Your task to perform on an android device: Go to Amazon Image 0: 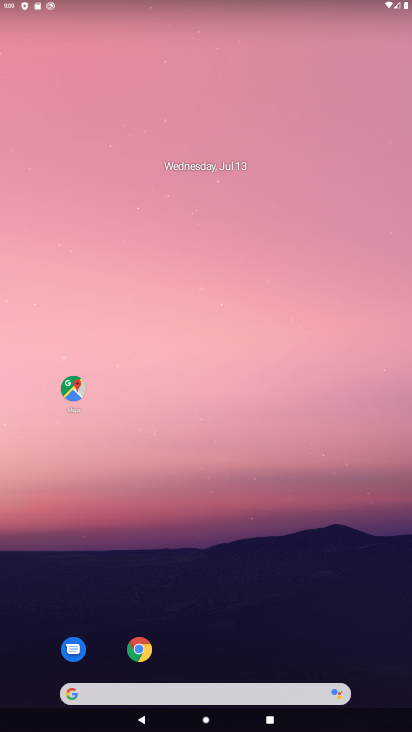
Step 0: click (144, 652)
Your task to perform on an android device: Go to Amazon Image 1: 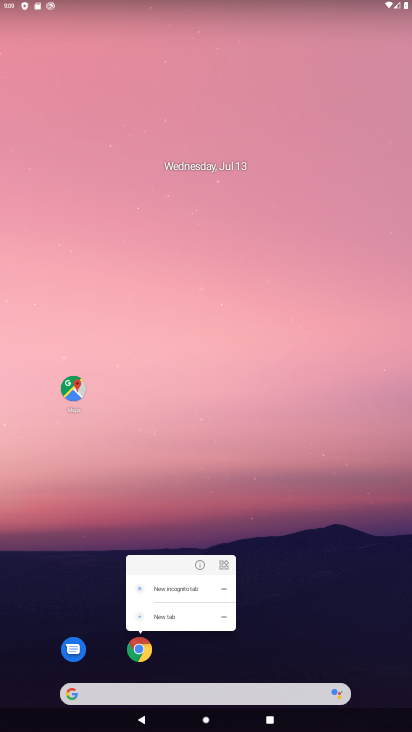
Step 1: click (147, 648)
Your task to perform on an android device: Go to Amazon Image 2: 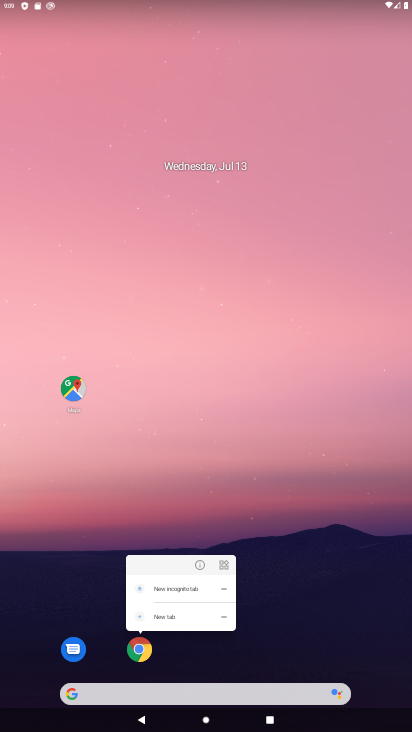
Step 2: click (146, 650)
Your task to perform on an android device: Go to Amazon Image 3: 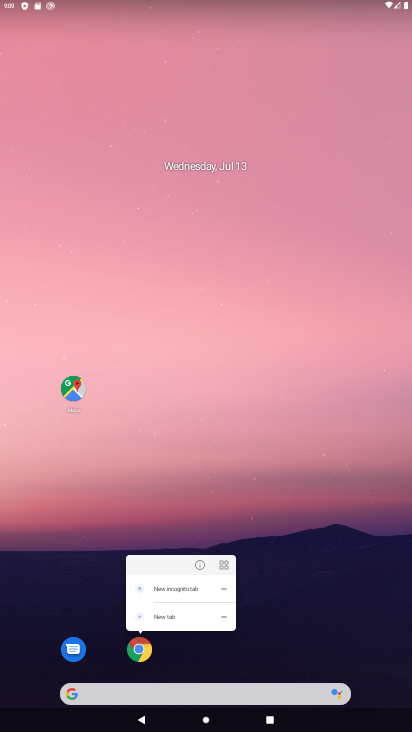
Step 3: click (136, 647)
Your task to perform on an android device: Go to Amazon Image 4: 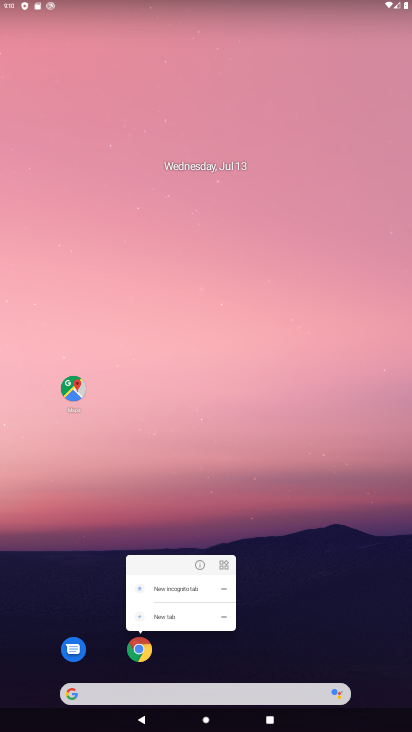
Step 4: click (132, 652)
Your task to perform on an android device: Go to Amazon Image 5: 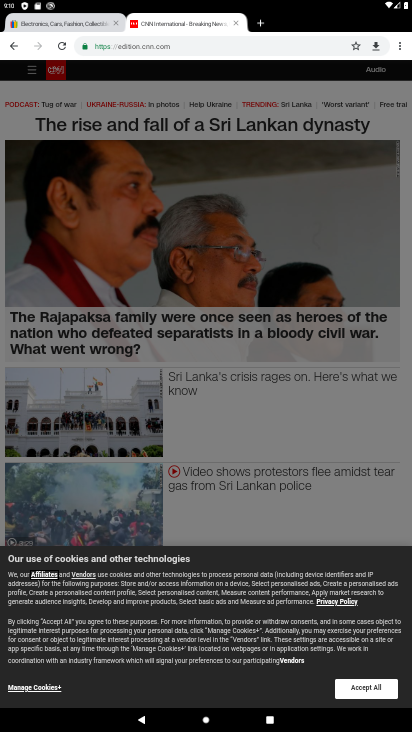
Step 5: click (399, 45)
Your task to perform on an android device: Go to Amazon Image 6: 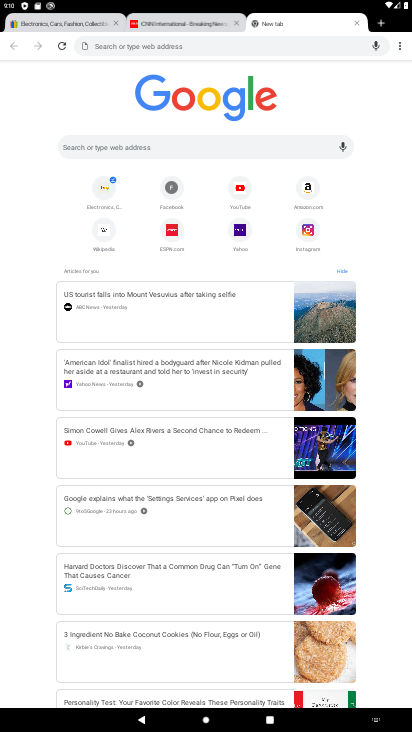
Step 6: click (303, 191)
Your task to perform on an android device: Go to Amazon Image 7: 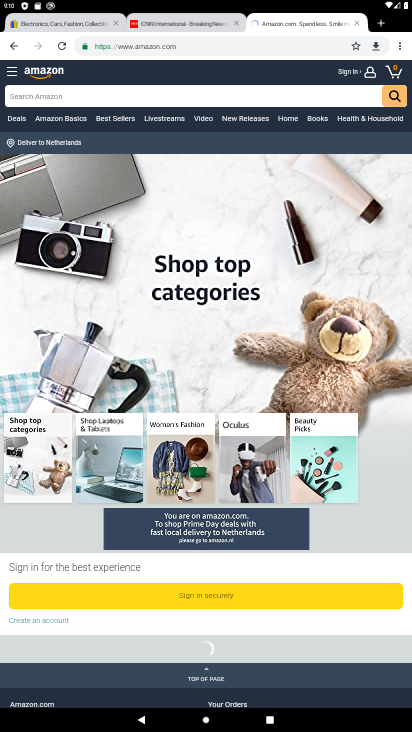
Step 7: task complete